Your task to perform on an android device: open a new tab in the chrome app Image 0: 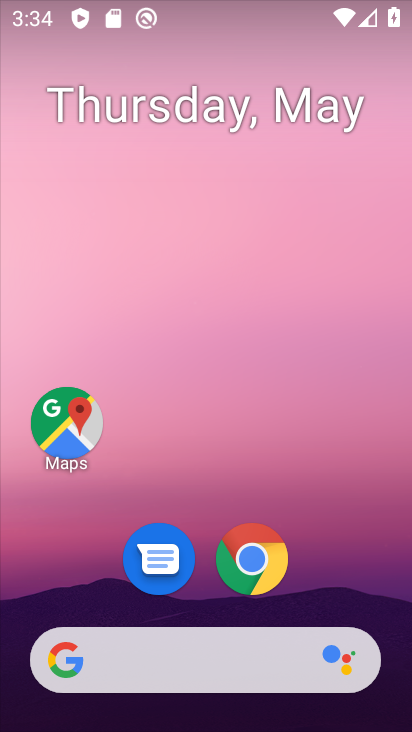
Step 0: click (246, 581)
Your task to perform on an android device: open a new tab in the chrome app Image 1: 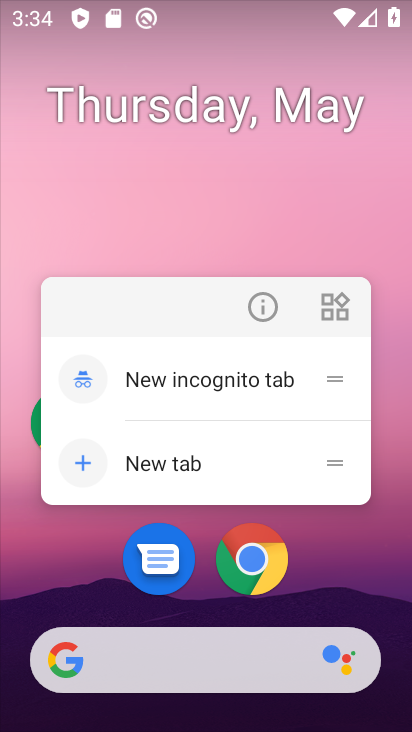
Step 1: click (246, 581)
Your task to perform on an android device: open a new tab in the chrome app Image 2: 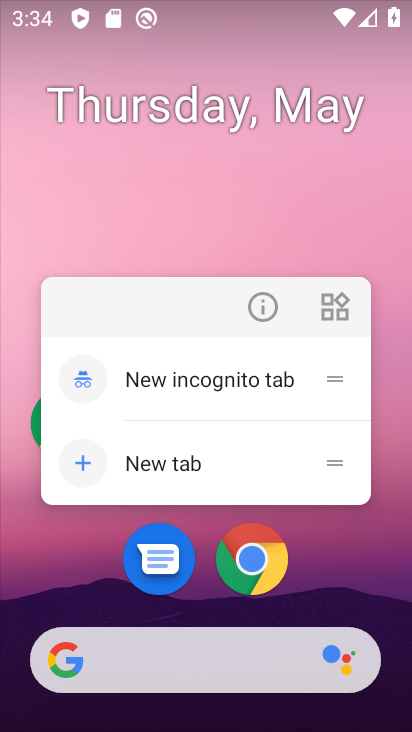
Step 2: click (261, 566)
Your task to perform on an android device: open a new tab in the chrome app Image 3: 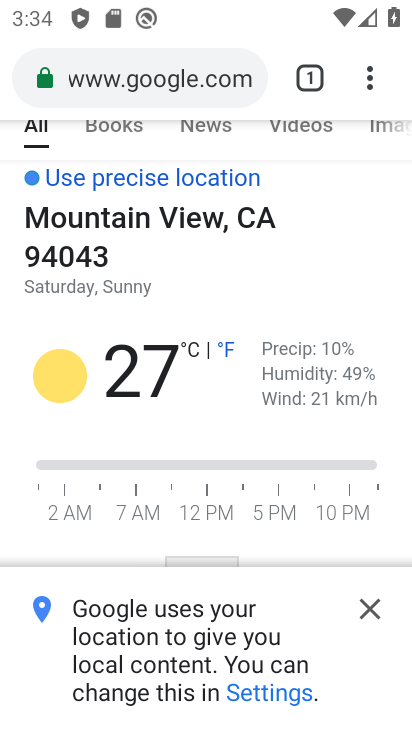
Step 3: task complete